Your task to perform on an android device: toggle show notifications on the lock screen Image 0: 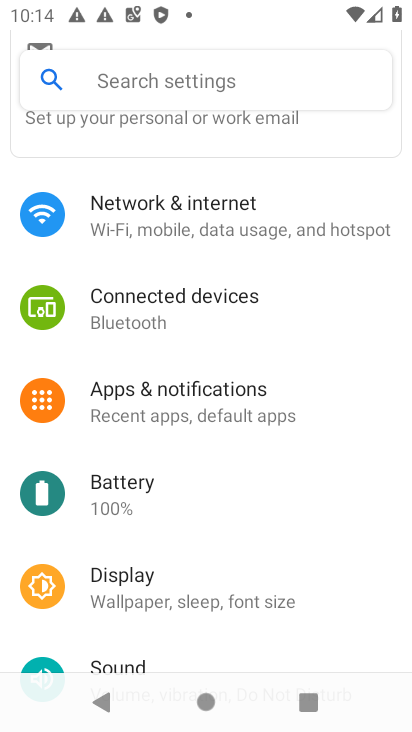
Step 0: click (191, 400)
Your task to perform on an android device: toggle show notifications on the lock screen Image 1: 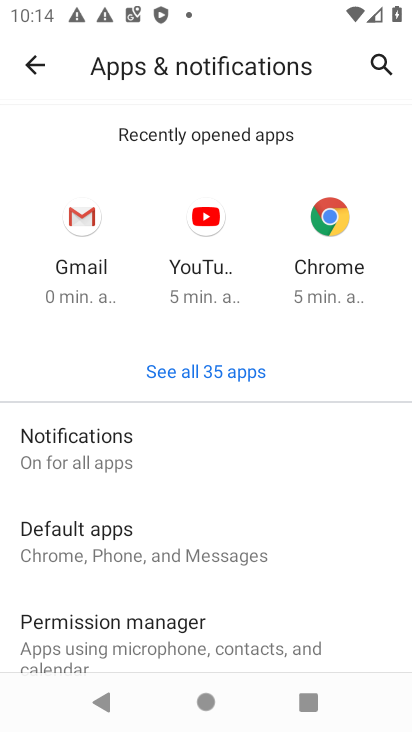
Step 1: click (60, 450)
Your task to perform on an android device: toggle show notifications on the lock screen Image 2: 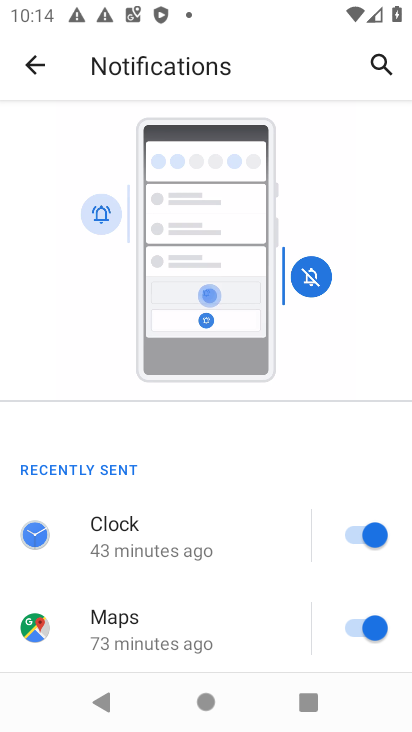
Step 2: drag from (270, 634) to (266, 155)
Your task to perform on an android device: toggle show notifications on the lock screen Image 3: 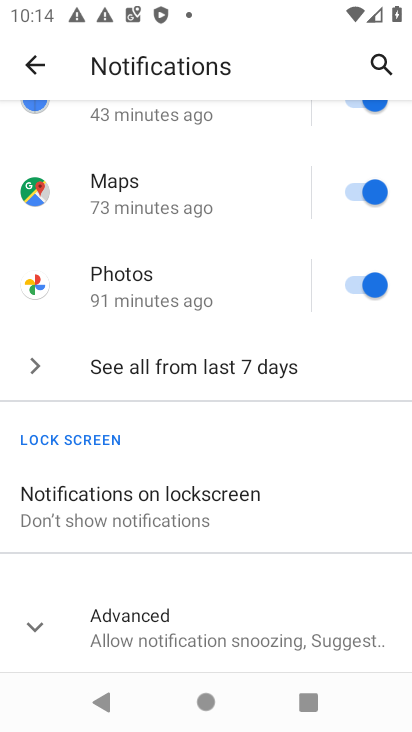
Step 3: drag from (261, 591) to (255, 240)
Your task to perform on an android device: toggle show notifications on the lock screen Image 4: 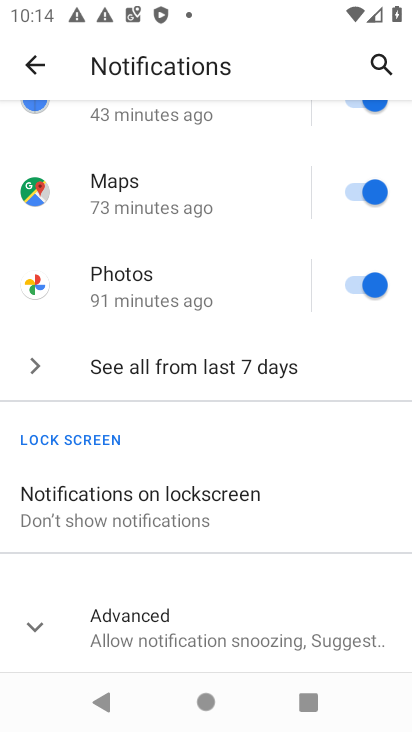
Step 4: click (35, 625)
Your task to perform on an android device: toggle show notifications on the lock screen Image 5: 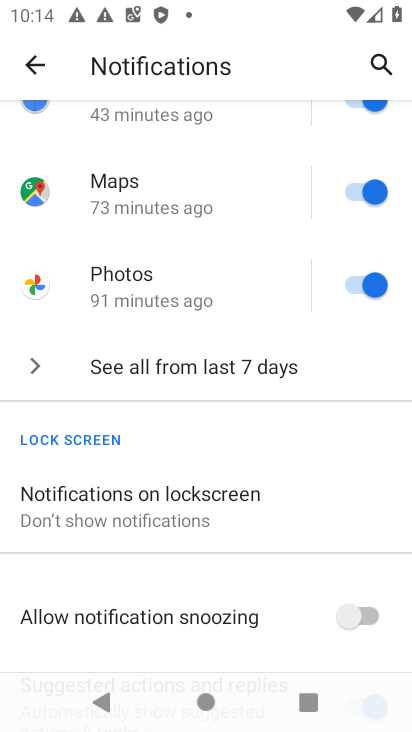
Step 5: click (94, 504)
Your task to perform on an android device: toggle show notifications on the lock screen Image 6: 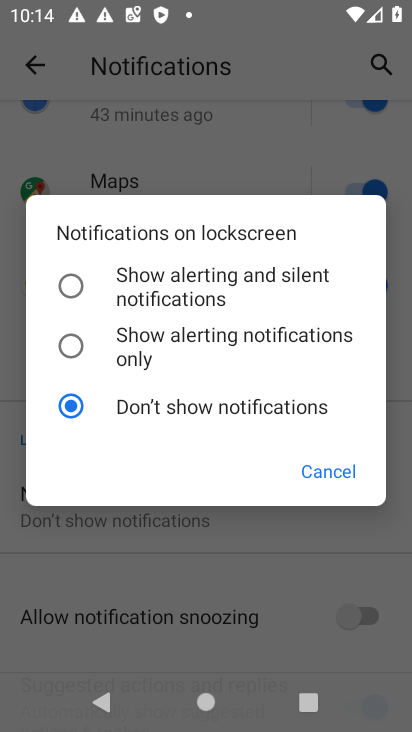
Step 6: click (68, 286)
Your task to perform on an android device: toggle show notifications on the lock screen Image 7: 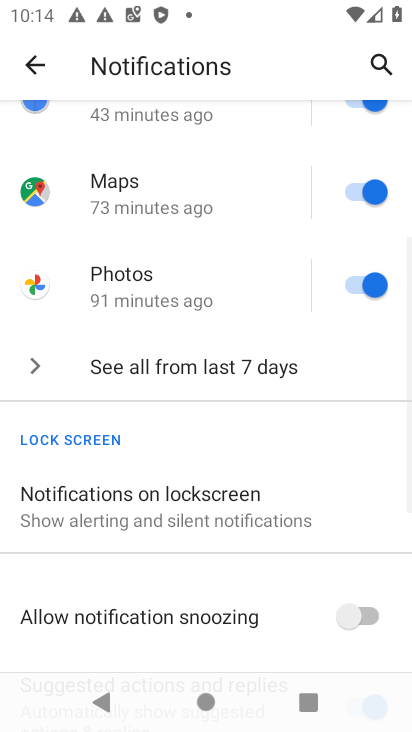
Step 7: task complete